Your task to perform on an android device: Open the stopwatch Image 0: 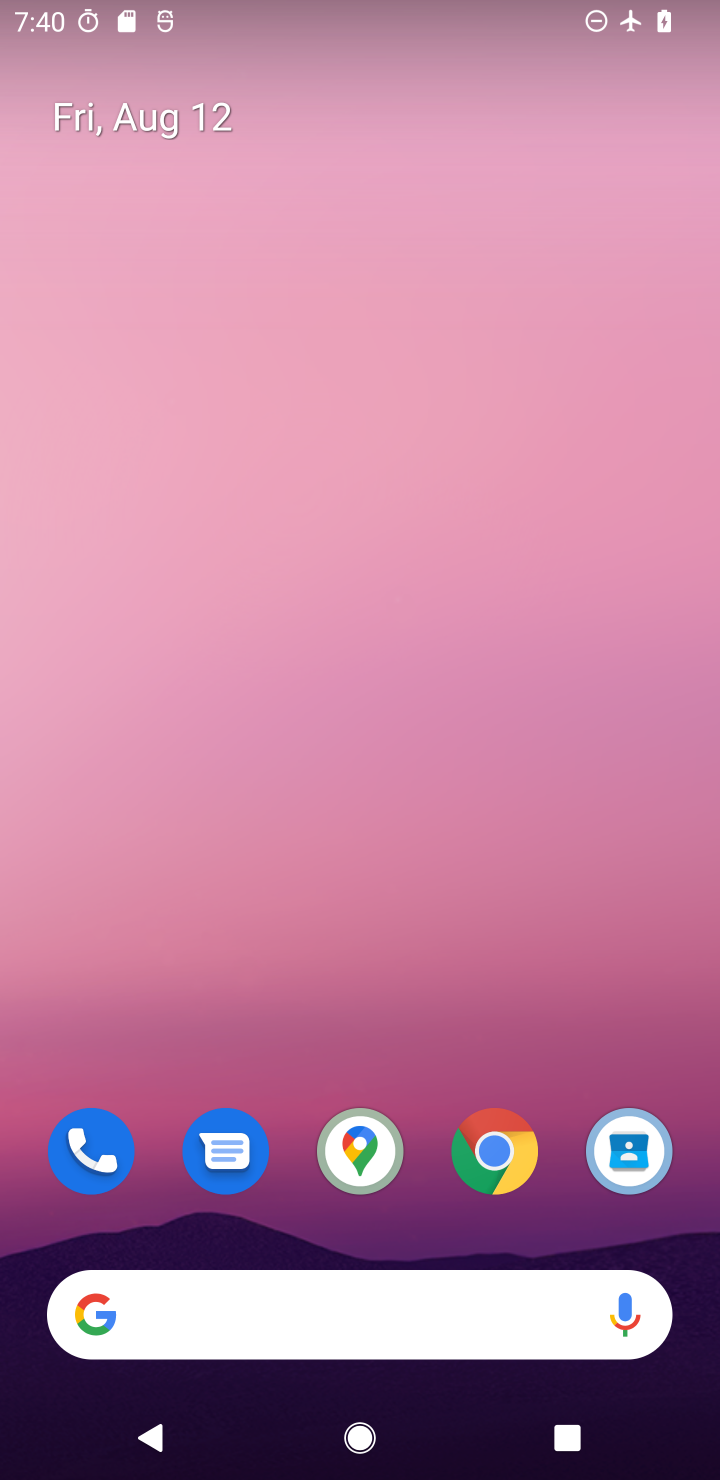
Step 0: drag from (399, 1032) to (317, 0)
Your task to perform on an android device: Open the stopwatch Image 1: 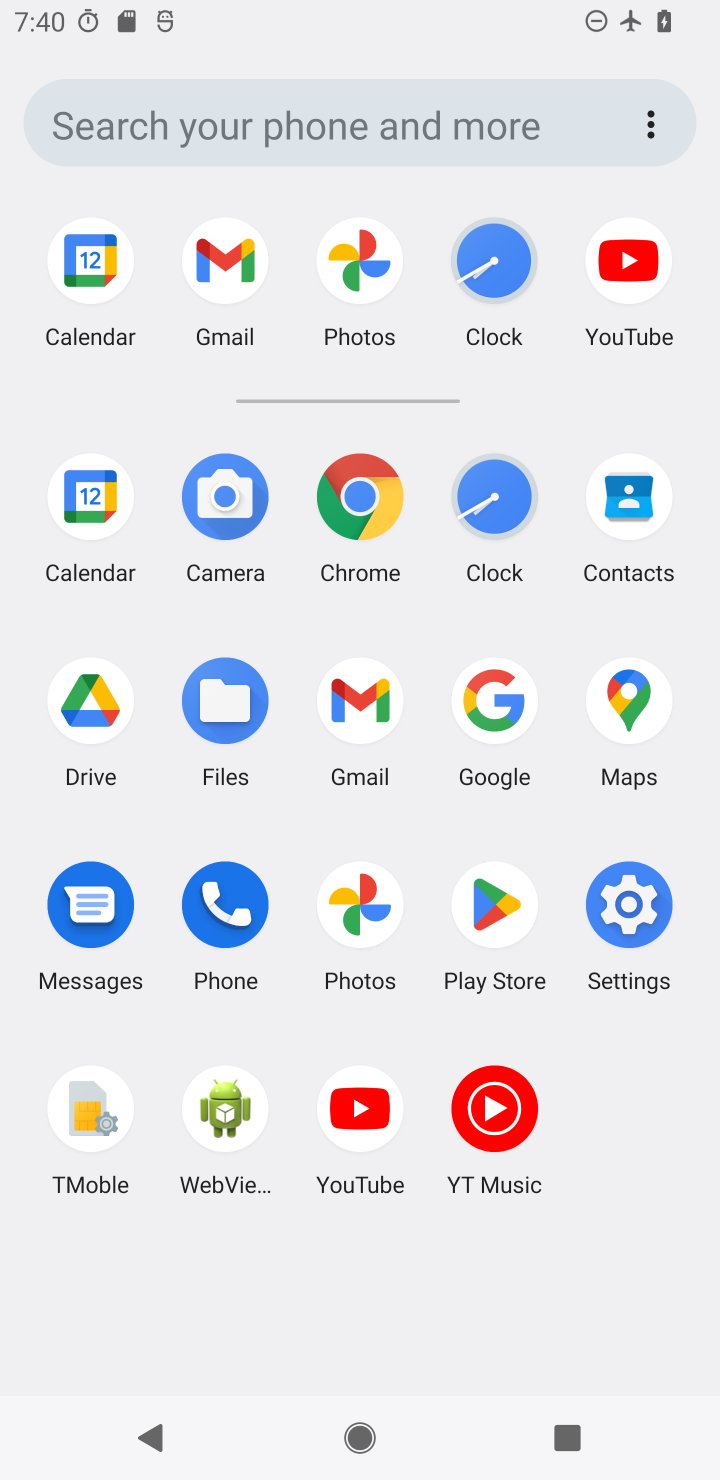
Step 1: click (486, 492)
Your task to perform on an android device: Open the stopwatch Image 2: 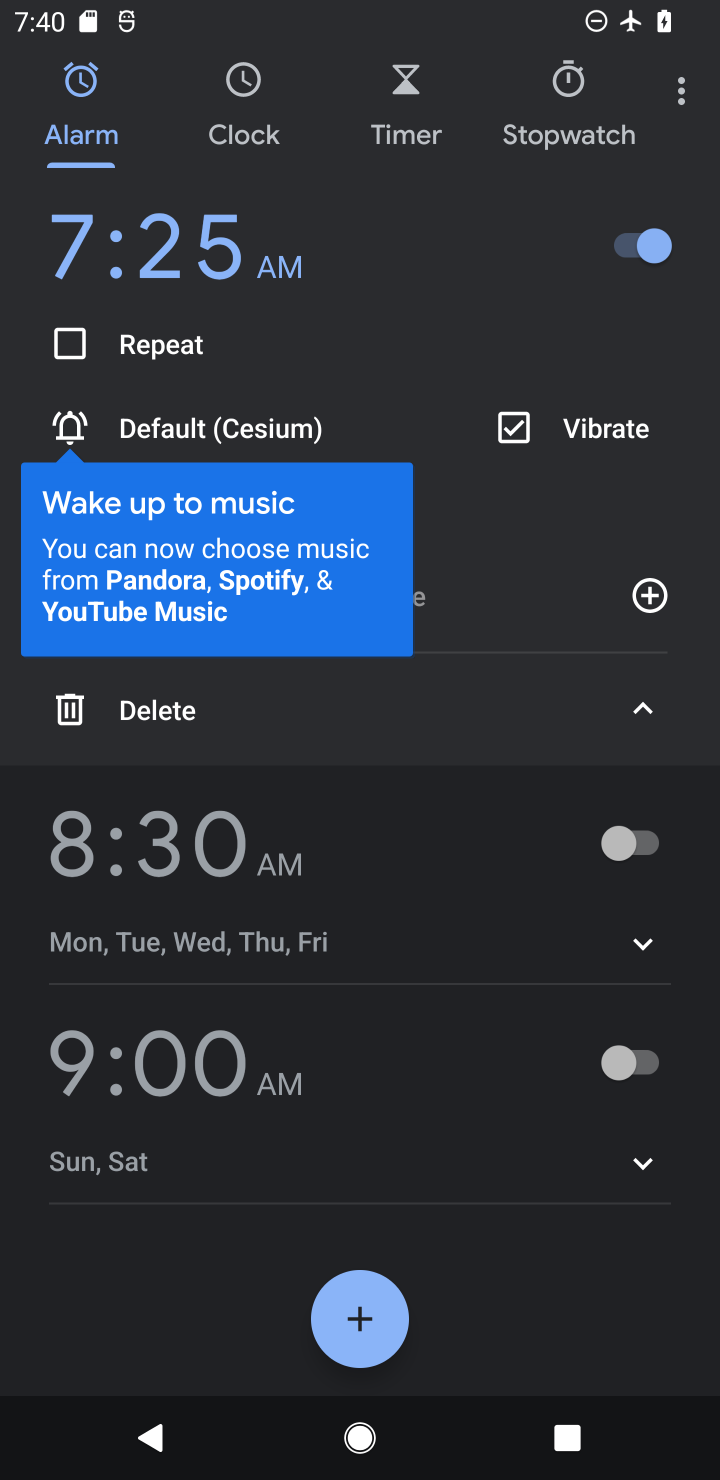
Step 2: click (538, 107)
Your task to perform on an android device: Open the stopwatch Image 3: 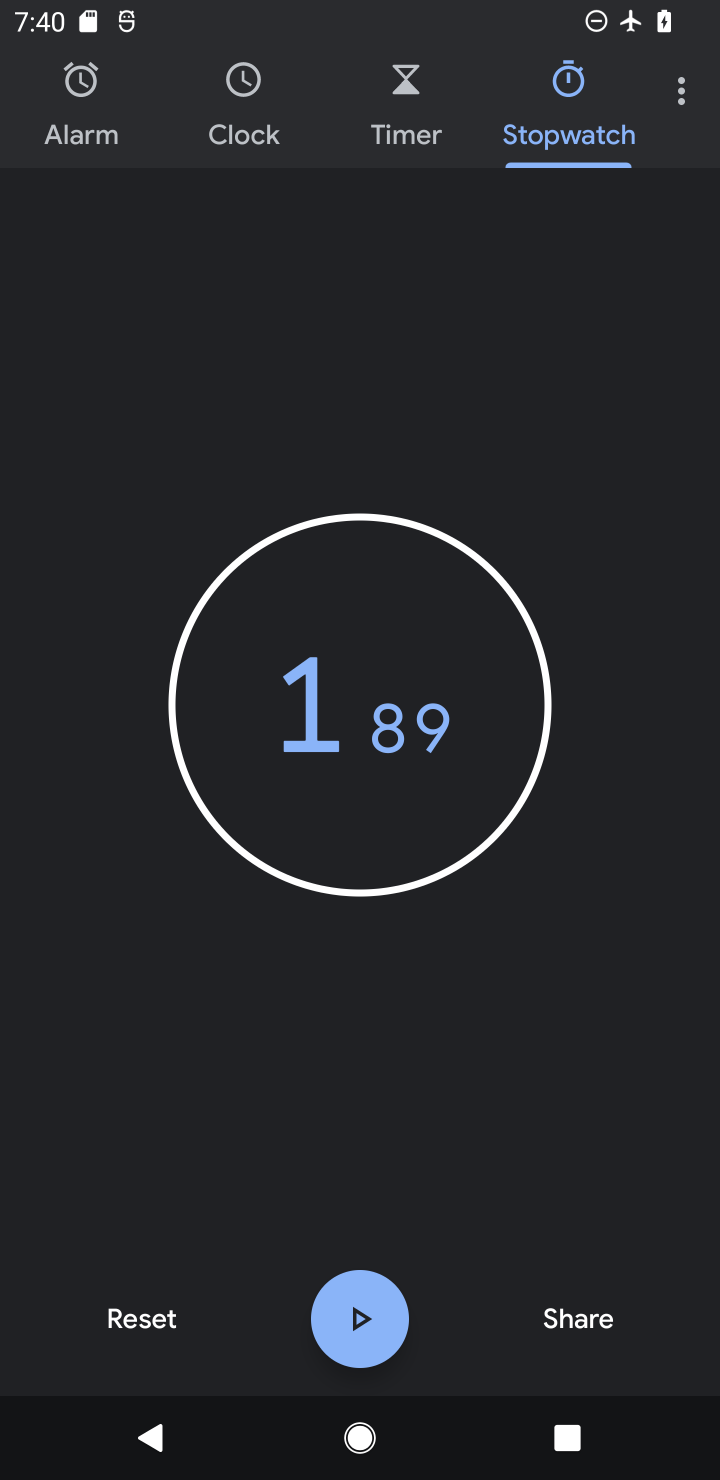
Step 3: task complete